Your task to perform on an android device: Open Google Chrome Image 0: 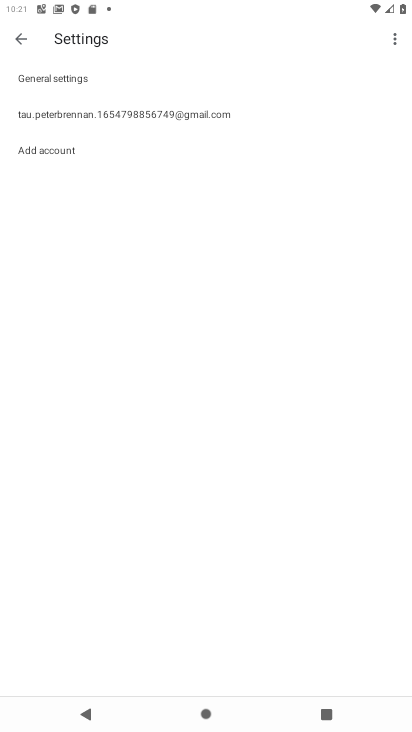
Step 0: press home button
Your task to perform on an android device: Open Google Chrome Image 1: 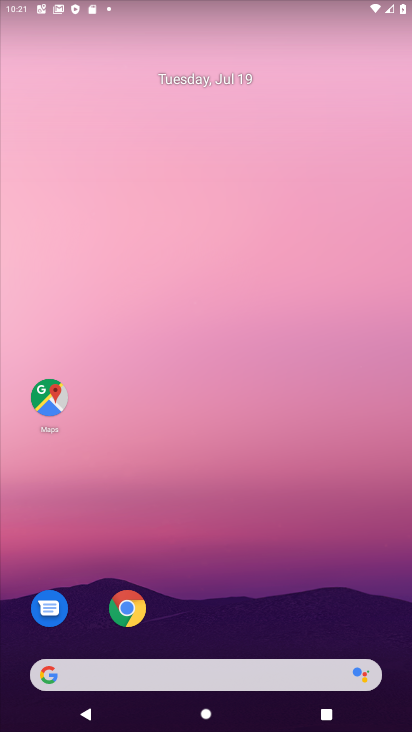
Step 1: click (133, 607)
Your task to perform on an android device: Open Google Chrome Image 2: 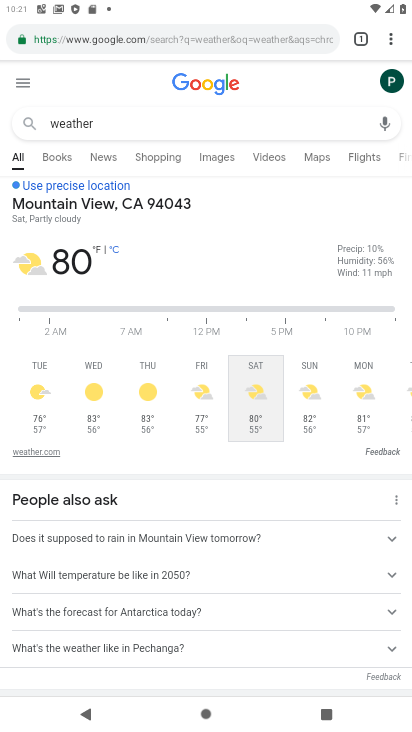
Step 2: task complete